Your task to perform on an android device: add a label to a message in the gmail app Image 0: 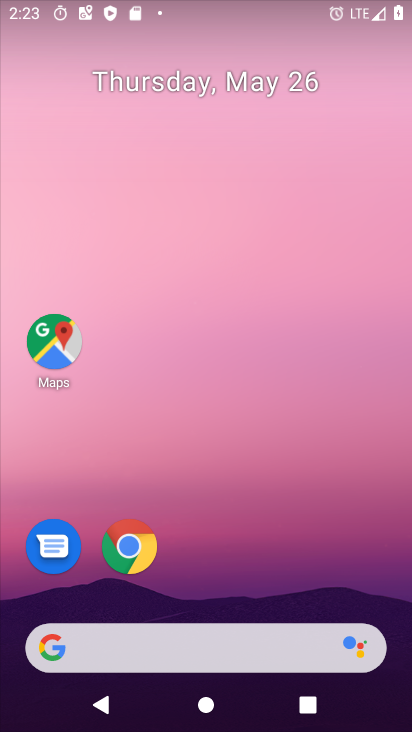
Step 0: drag from (192, 519) to (194, 119)
Your task to perform on an android device: add a label to a message in the gmail app Image 1: 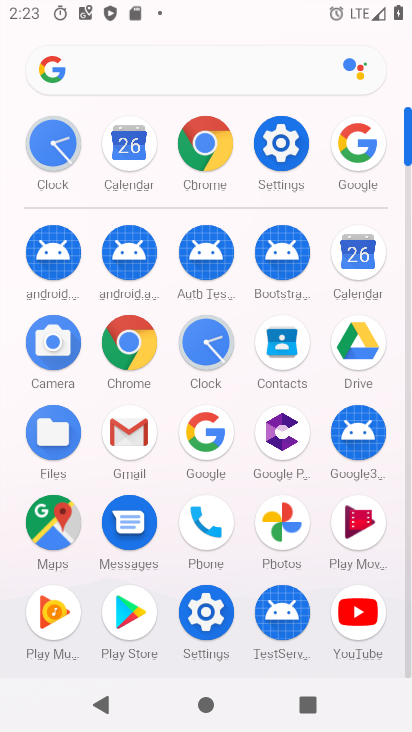
Step 1: click (128, 425)
Your task to perform on an android device: add a label to a message in the gmail app Image 2: 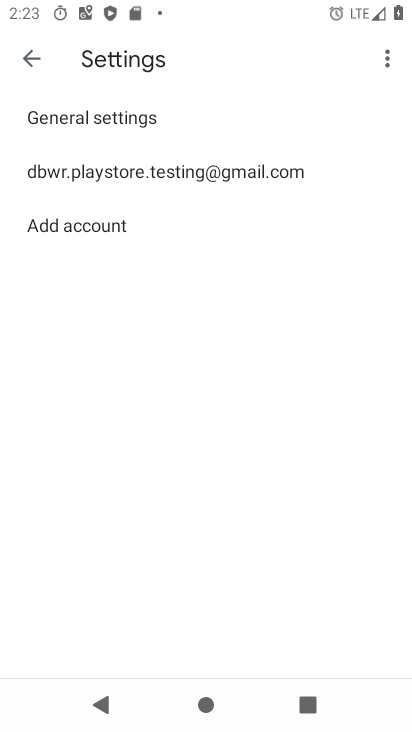
Step 2: click (202, 171)
Your task to perform on an android device: add a label to a message in the gmail app Image 3: 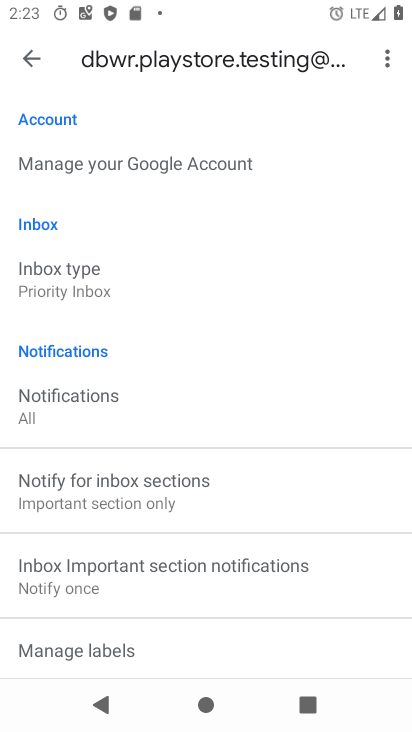
Step 3: press back button
Your task to perform on an android device: add a label to a message in the gmail app Image 4: 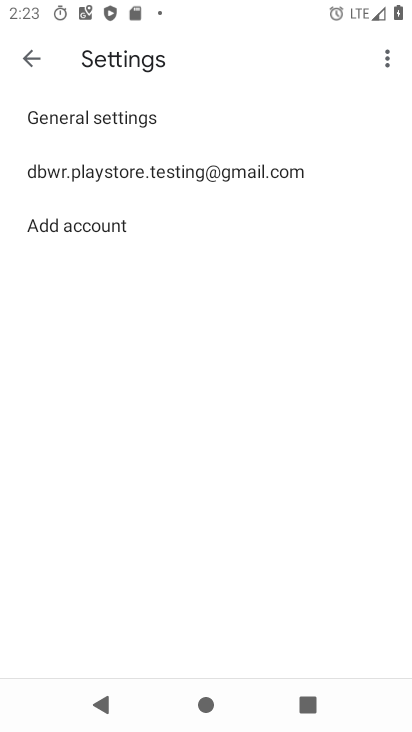
Step 4: press back button
Your task to perform on an android device: add a label to a message in the gmail app Image 5: 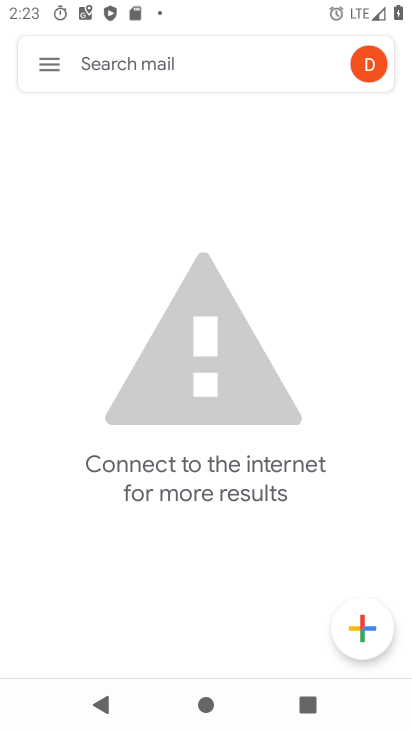
Step 5: click (51, 59)
Your task to perform on an android device: add a label to a message in the gmail app Image 6: 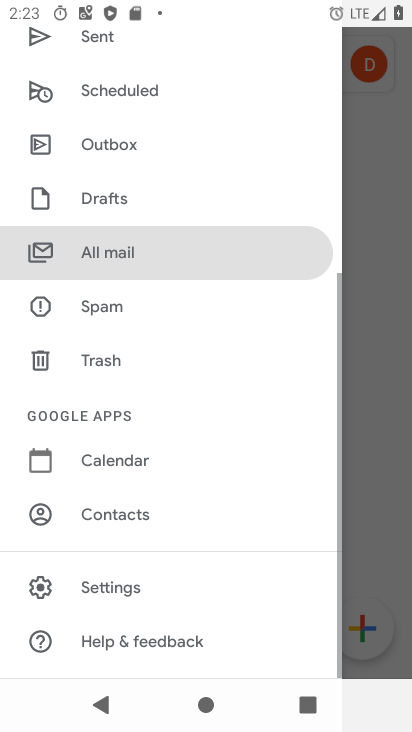
Step 6: drag from (127, 466) to (134, 247)
Your task to perform on an android device: add a label to a message in the gmail app Image 7: 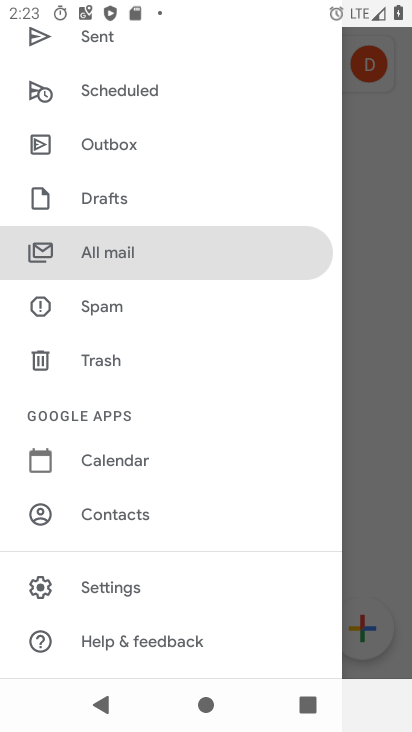
Step 7: click (111, 257)
Your task to perform on an android device: add a label to a message in the gmail app Image 8: 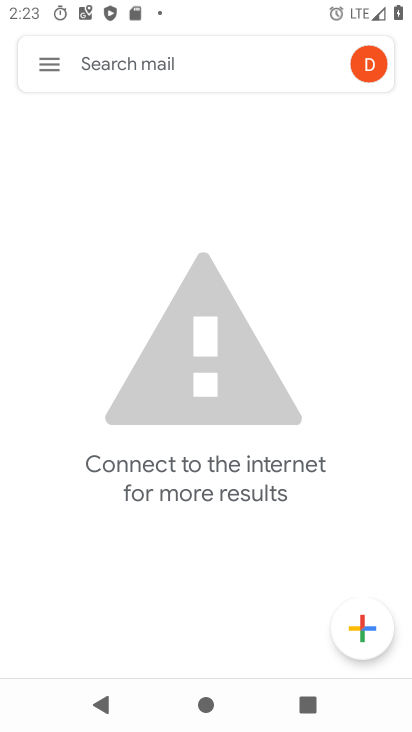
Step 8: task complete